Your task to perform on an android device: open a new tab in the chrome app Image 0: 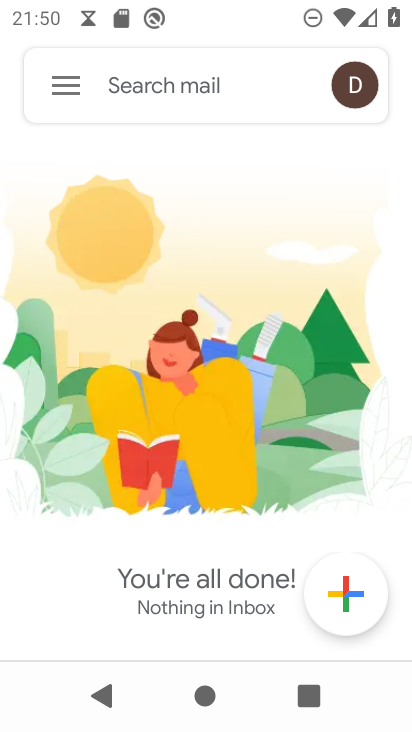
Step 0: press home button
Your task to perform on an android device: open a new tab in the chrome app Image 1: 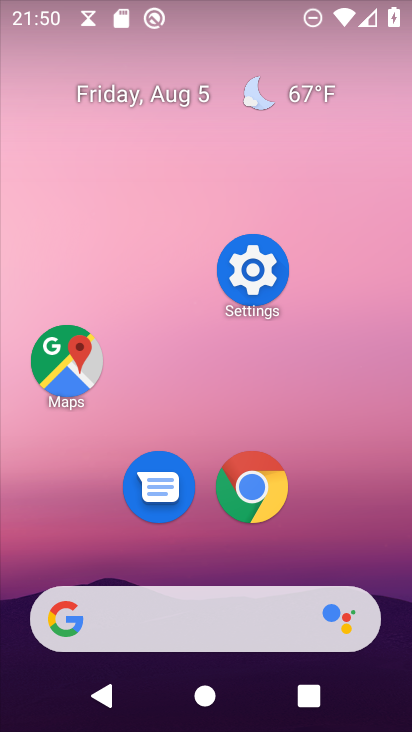
Step 1: click (245, 491)
Your task to perform on an android device: open a new tab in the chrome app Image 2: 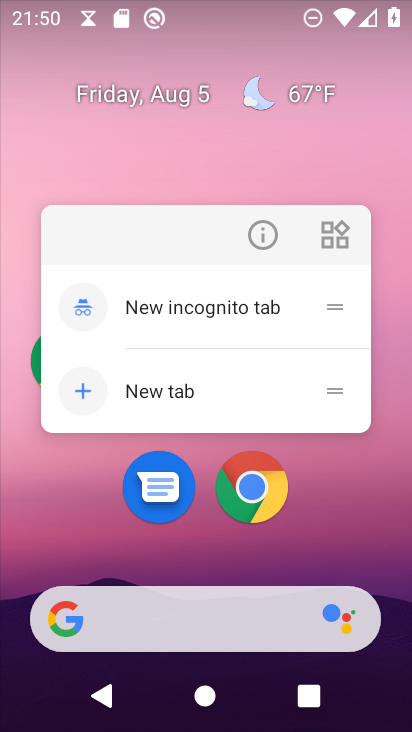
Step 2: click (241, 487)
Your task to perform on an android device: open a new tab in the chrome app Image 3: 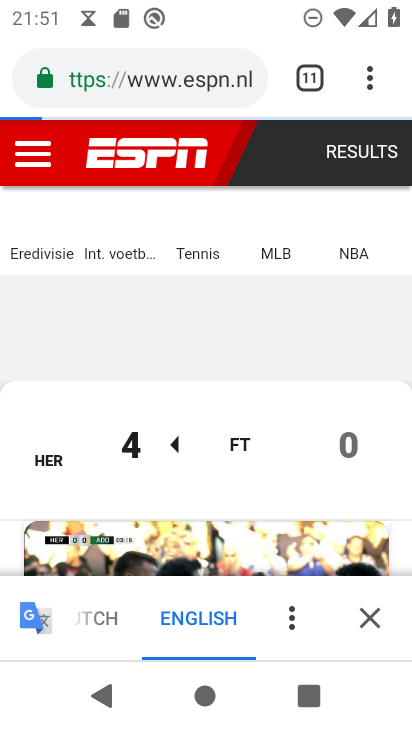
Step 3: task complete